Your task to perform on an android device: Open Wikipedia Image 0: 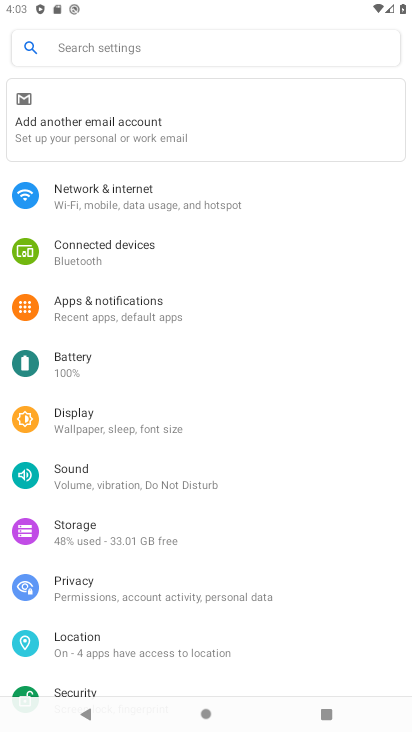
Step 0: click (84, 714)
Your task to perform on an android device: Open Wikipedia Image 1: 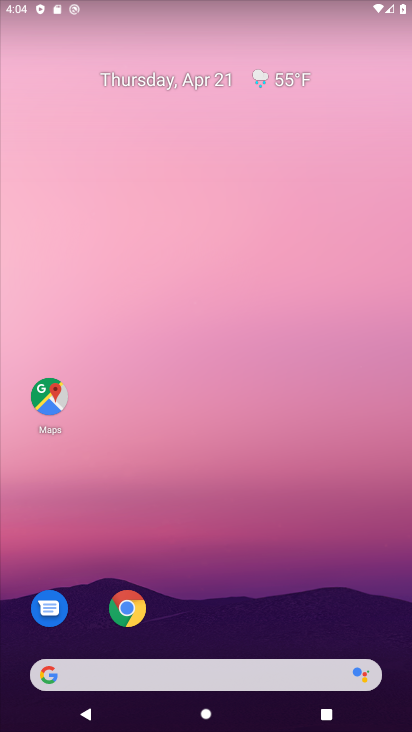
Step 1: drag from (203, 549) to (251, 135)
Your task to perform on an android device: Open Wikipedia Image 2: 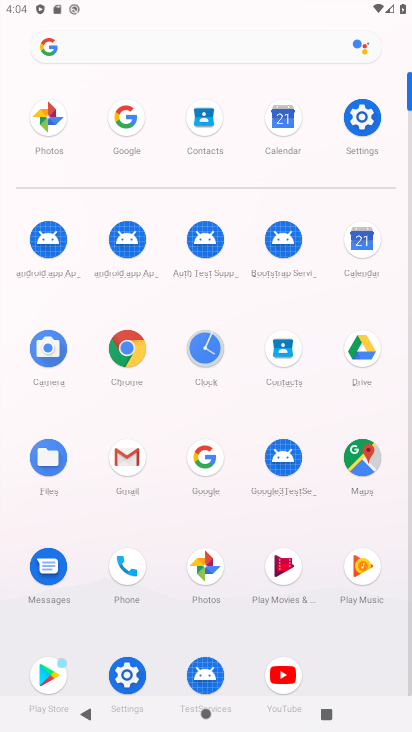
Step 2: click (136, 353)
Your task to perform on an android device: Open Wikipedia Image 3: 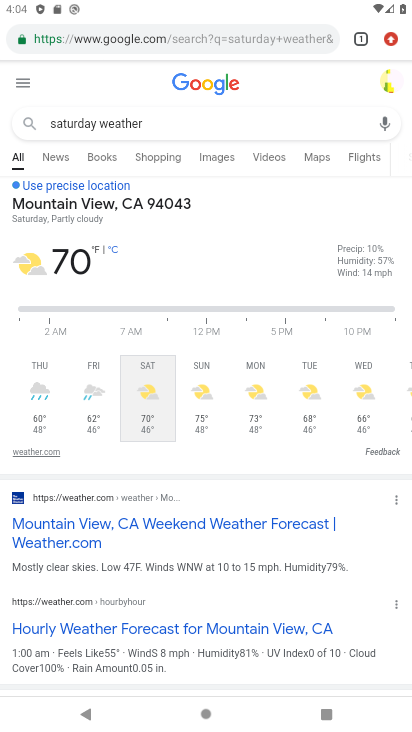
Step 3: click (87, 711)
Your task to perform on an android device: Open Wikipedia Image 4: 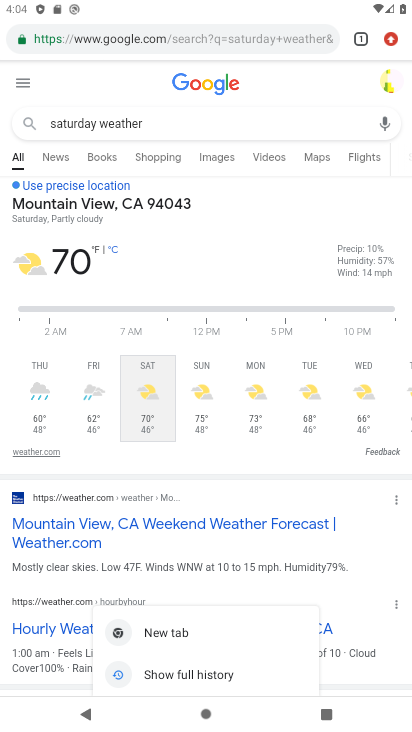
Step 4: click (81, 719)
Your task to perform on an android device: Open Wikipedia Image 5: 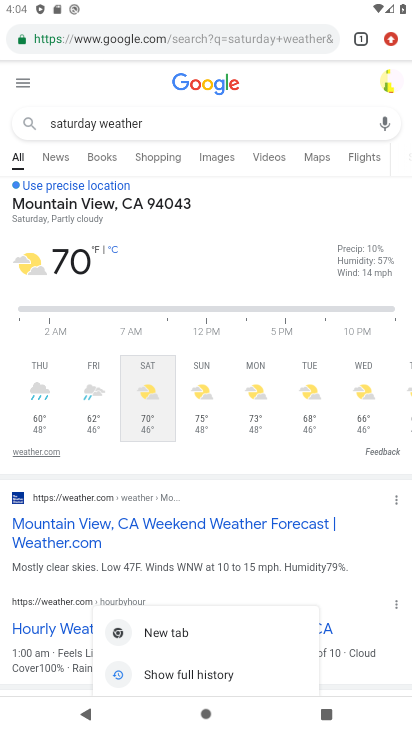
Step 5: click (75, 42)
Your task to perform on an android device: Open Wikipedia Image 6: 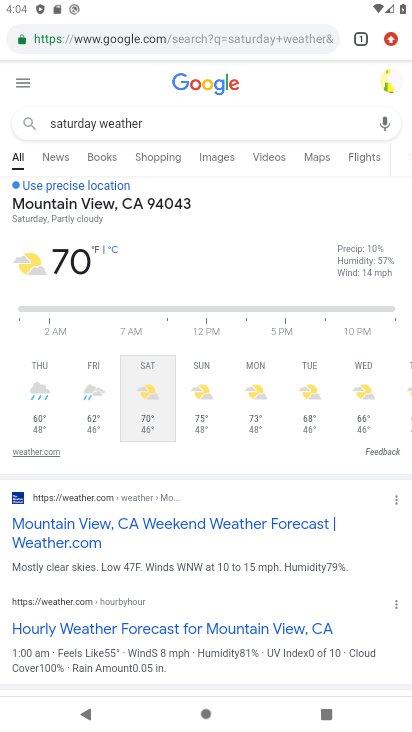
Step 6: click (75, 42)
Your task to perform on an android device: Open Wikipedia Image 7: 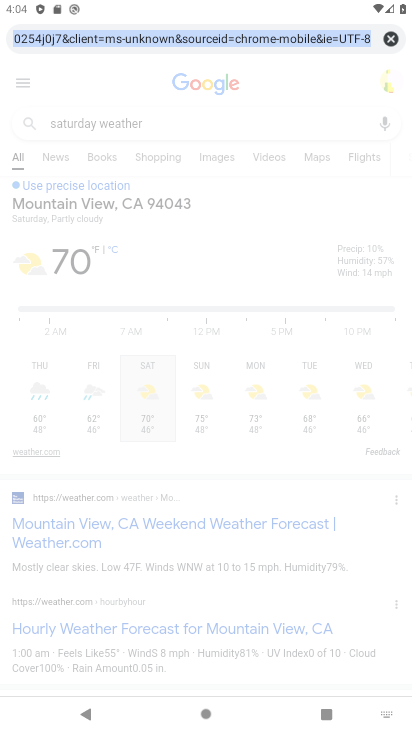
Step 7: click (77, 38)
Your task to perform on an android device: Open Wikipedia Image 8: 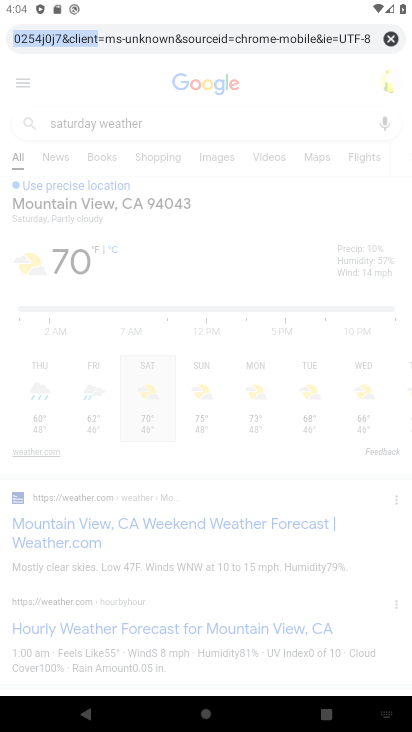
Step 8: click (78, 35)
Your task to perform on an android device: Open Wikipedia Image 9: 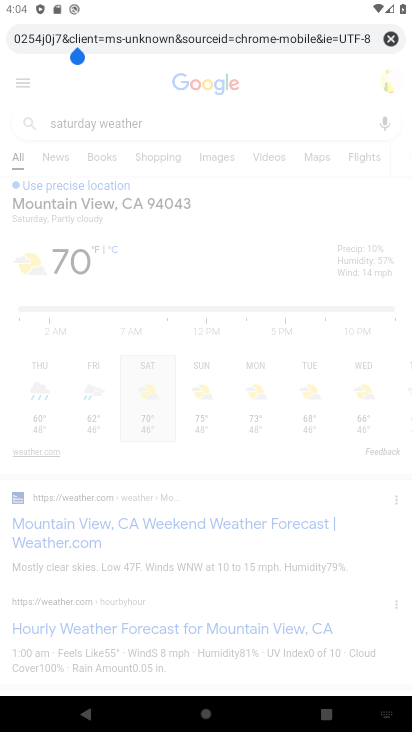
Step 9: click (393, 37)
Your task to perform on an android device: Open Wikipedia Image 10: 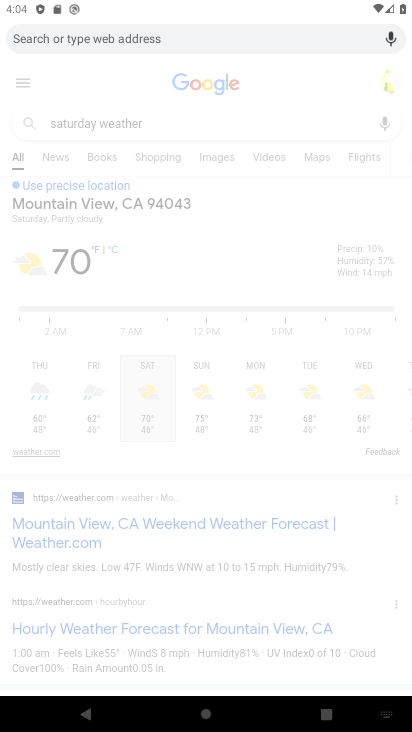
Step 10: click (135, 33)
Your task to perform on an android device: Open Wikipedia Image 11: 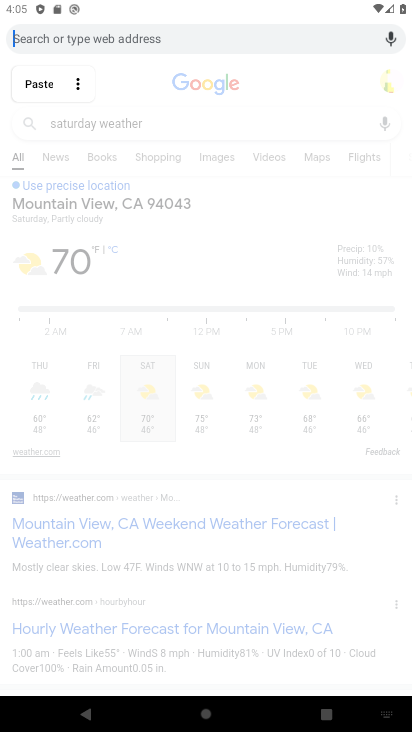
Step 11: click (118, 28)
Your task to perform on an android device: Open Wikipedia Image 12: 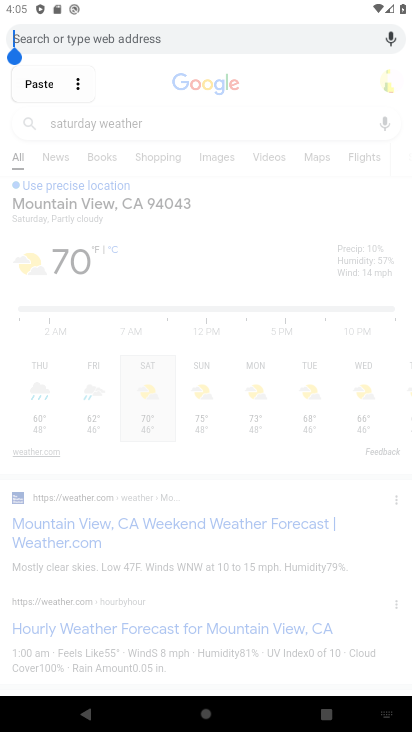
Step 12: click (114, 36)
Your task to perform on an android device: Open Wikipedia Image 13: 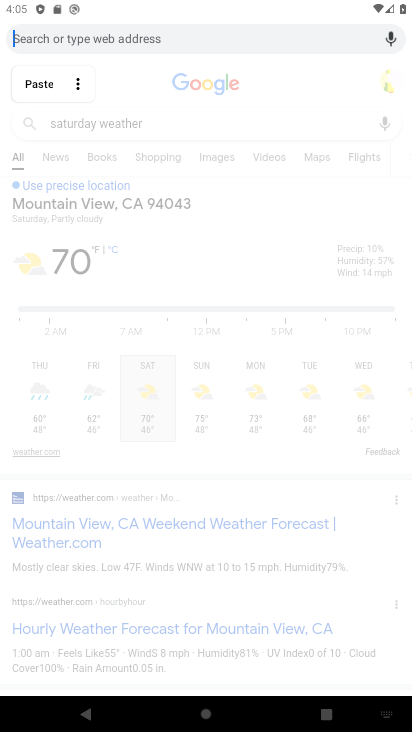
Step 13: click (87, 718)
Your task to perform on an android device: Open Wikipedia Image 14: 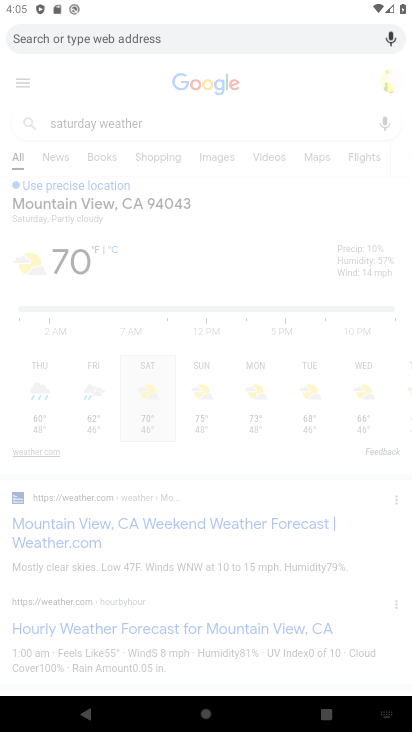
Step 14: type "wikipedia"
Your task to perform on an android device: Open Wikipedia Image 15: 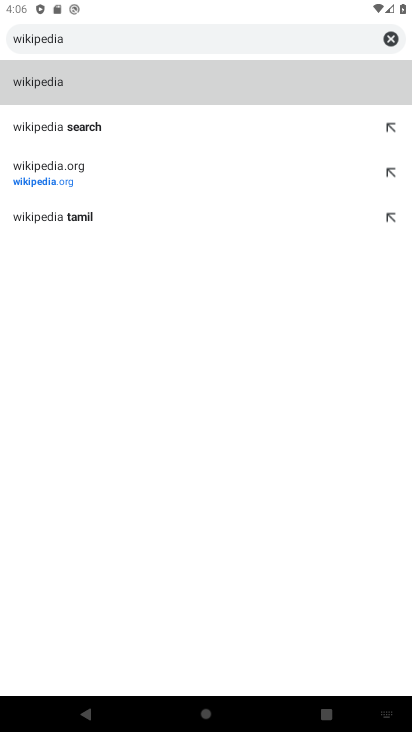
Step 15: task complete